Your task to perform on an android device: turn off improve location accuracy Image 0: 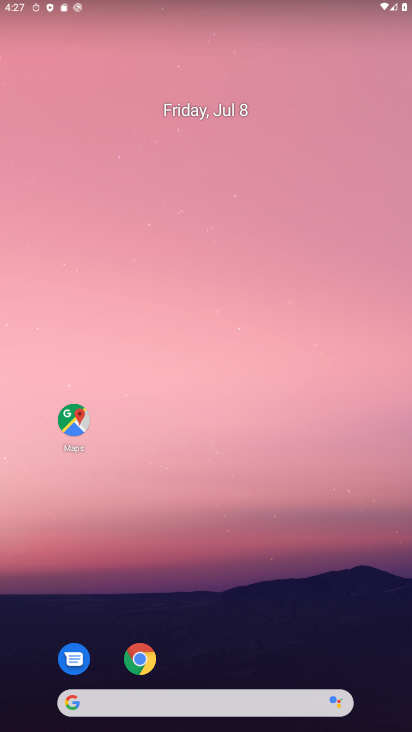
Step 0: drag from (302, 523) to (203, 118)
Your task to perform on an android device: turn off improve location accuracy Image 1: 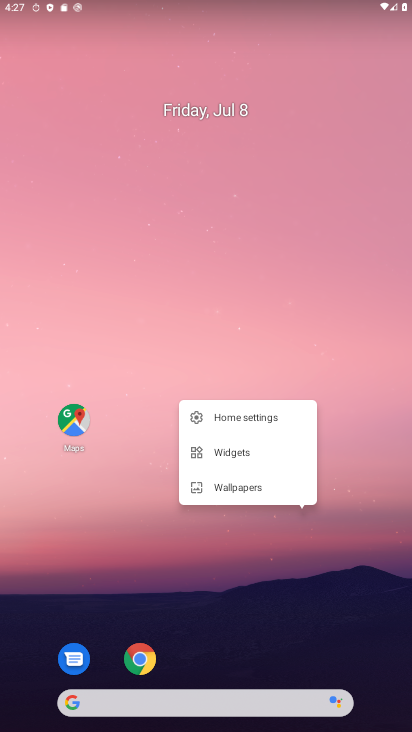
Step 1: drag from (265, 581) to (285, 122)
Your task to perform on an android device: turn off improve location accuracy Image 2: 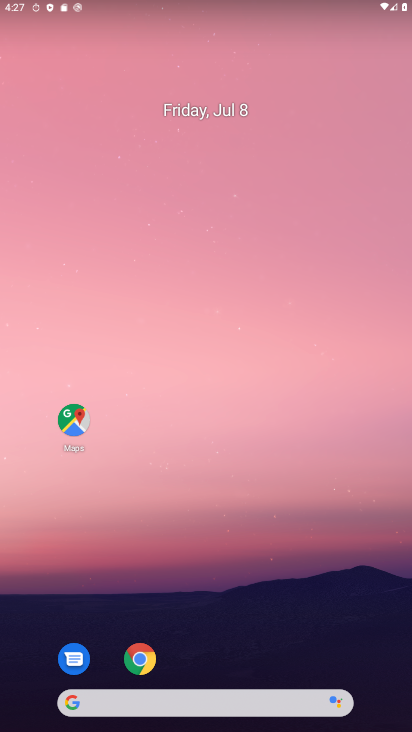
Step 2: drag from (283, 530) to (274, 118)
Your task to perform on an android device: turn off improve location accuracy Image 3: 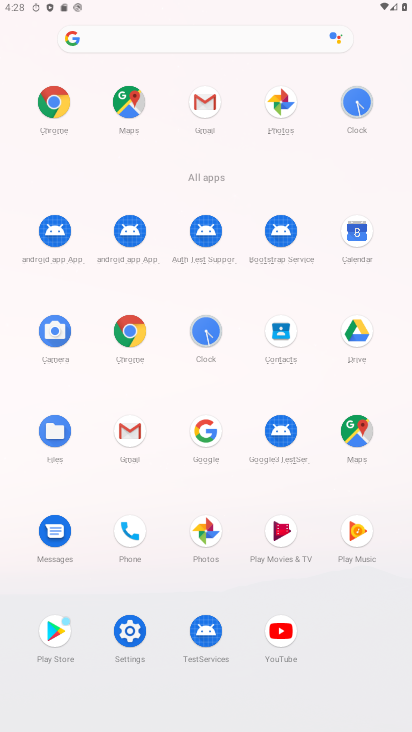
Step 3: click (125, 626)
Your task to perform on an android device: turn off improve location accuracy Image 4: 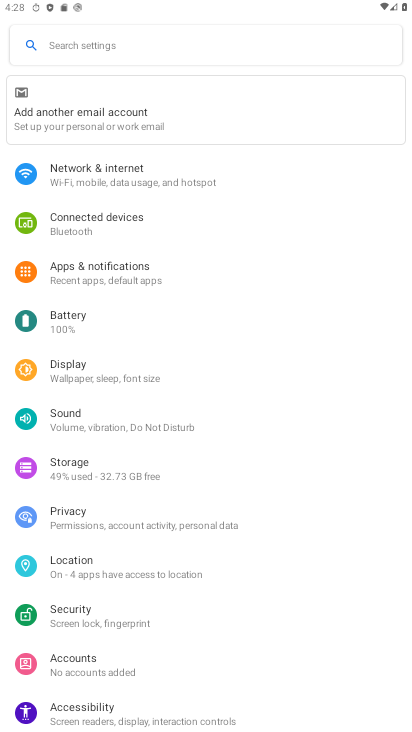
Step 4: click (99, 568)
Your task to perform on an android device: turn off improve location accuracy Image 5: 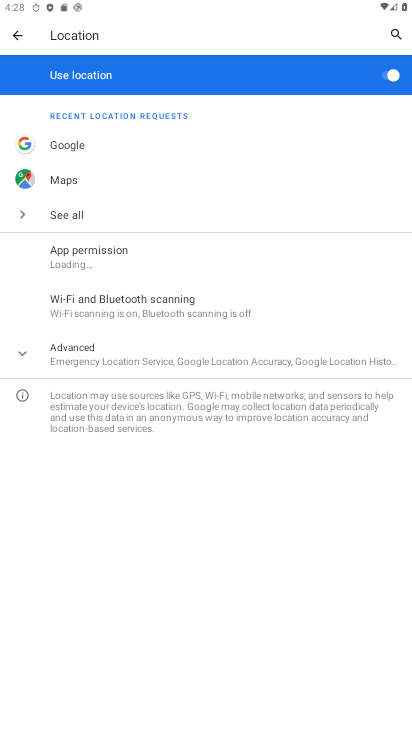
Step 5: click (108, 352)
Your task to perform on an android device: turn off improve location accuracy Image 6: 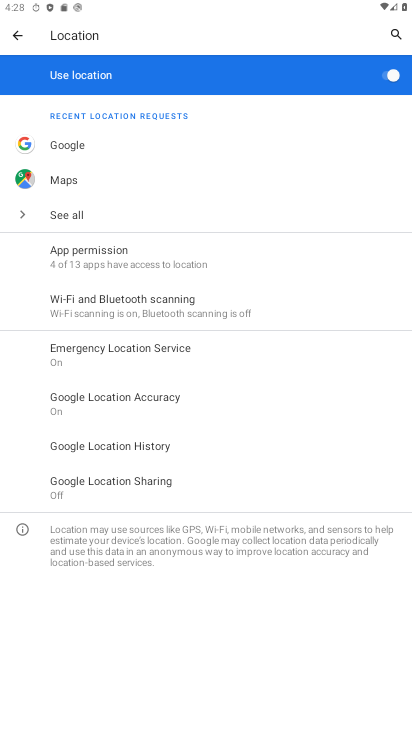
Step 6: click (152, 403)
Your task to perform on an android device: turn off improve location accuracy Image 7: 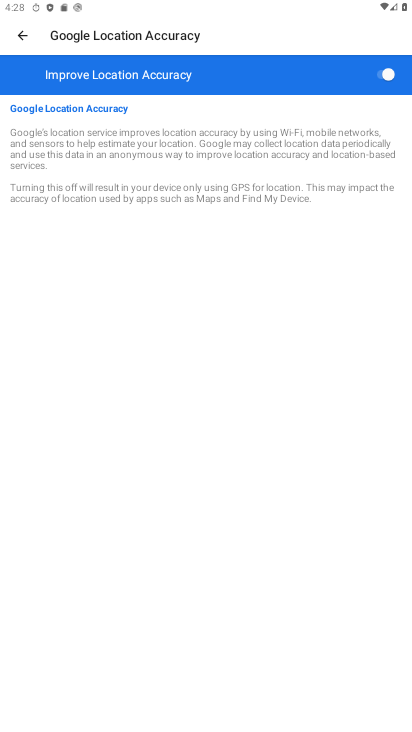
Step 7: click (380, 71)
Your task to perform on an android device: turn off improve location accuracy Image 8: 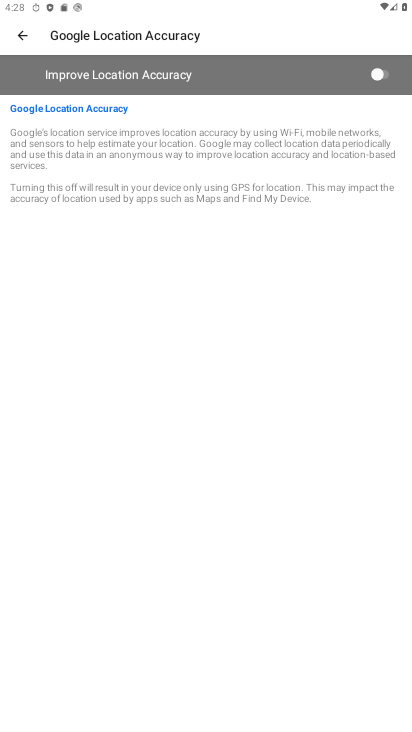
Step 8: task complete